Your task to perform on an android device: Open display settings Image 0: 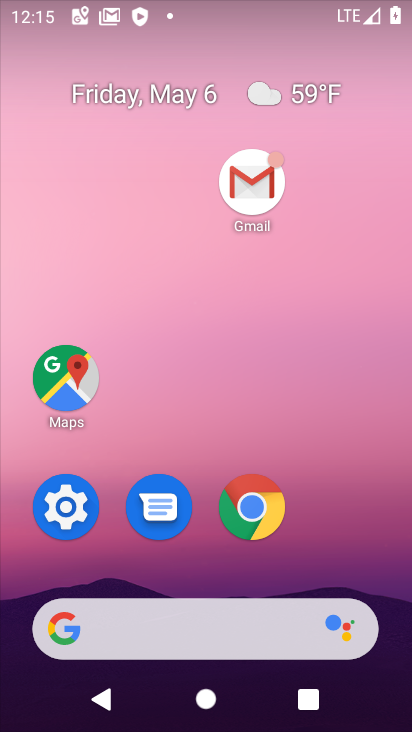
Step 0: click (62, 505)
Your task to perform on an android device: Open display settings Image 1: 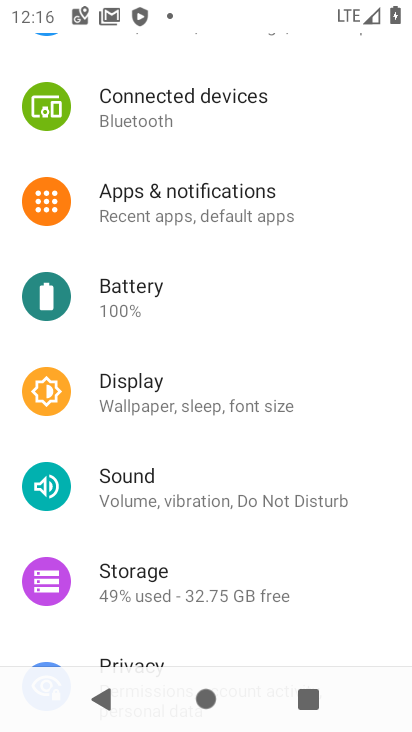
Step 1: click (135, 374)
Your task to perform on an android device: Open display settings Image 2: 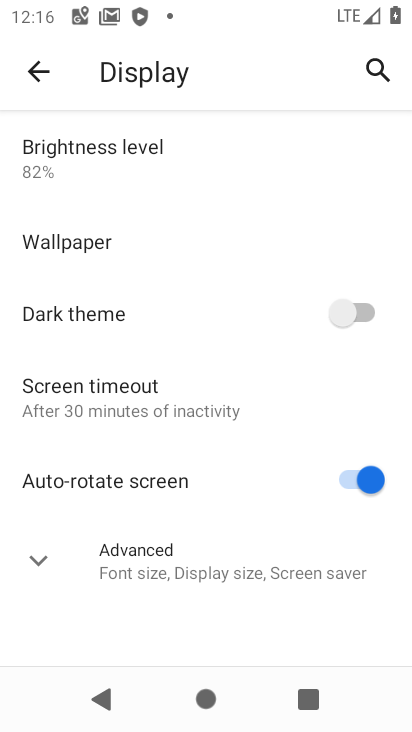
Step 2: task complete